Your task to perform on an android device: Search for Italian restaurants on Maps Image 0: 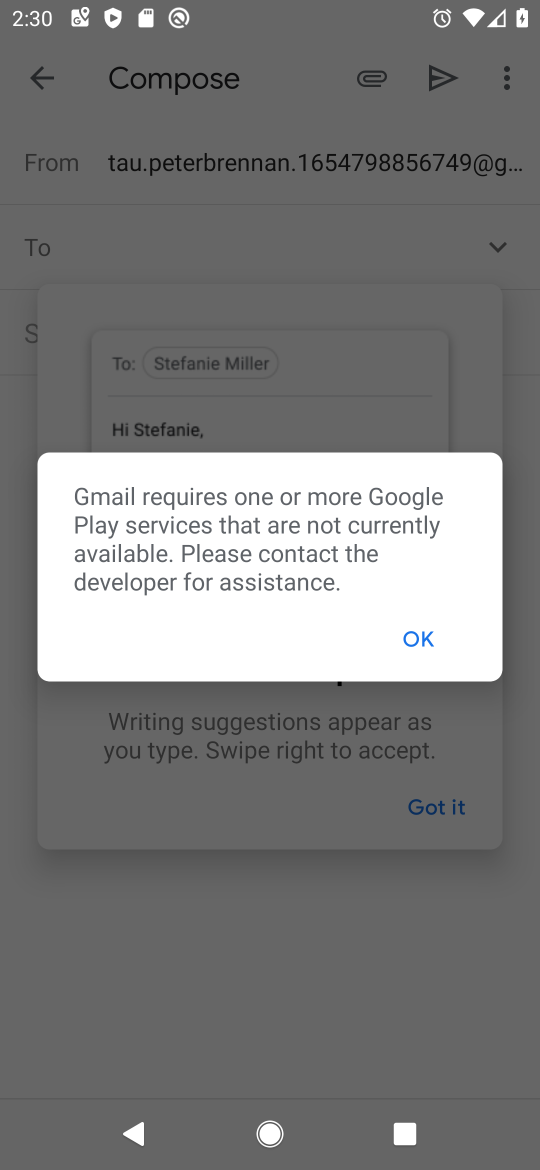
Step 0: press home button
Your task to perform on an android device: Search for Italian restaurants on Maps Image 1: 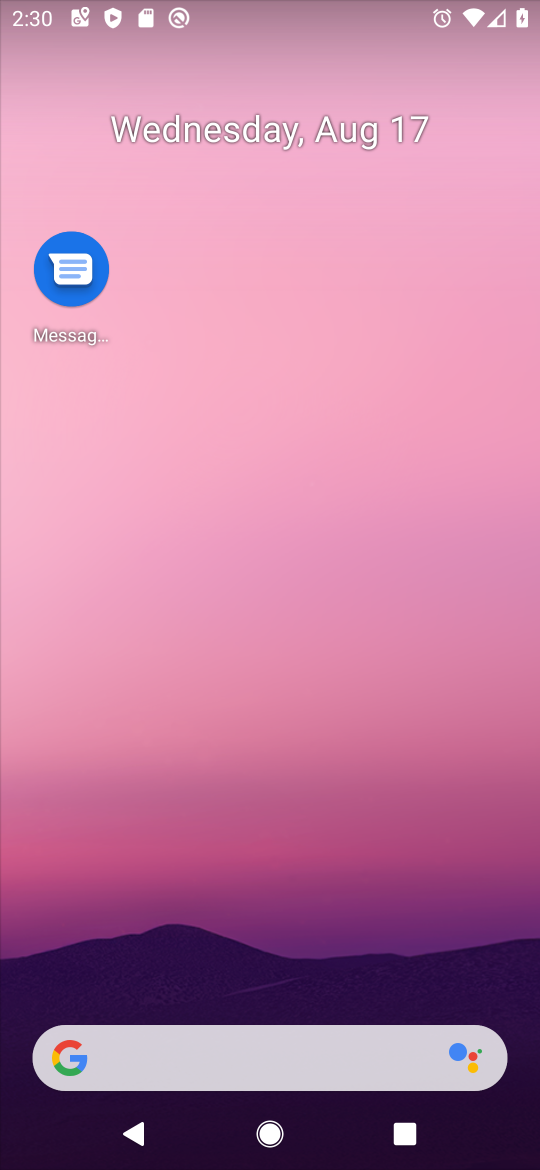
Step 1: drag from (255, 1006) to (235, 53)
Your task to perform on an android device: Search for Italian restaurants on Maps Image 2: 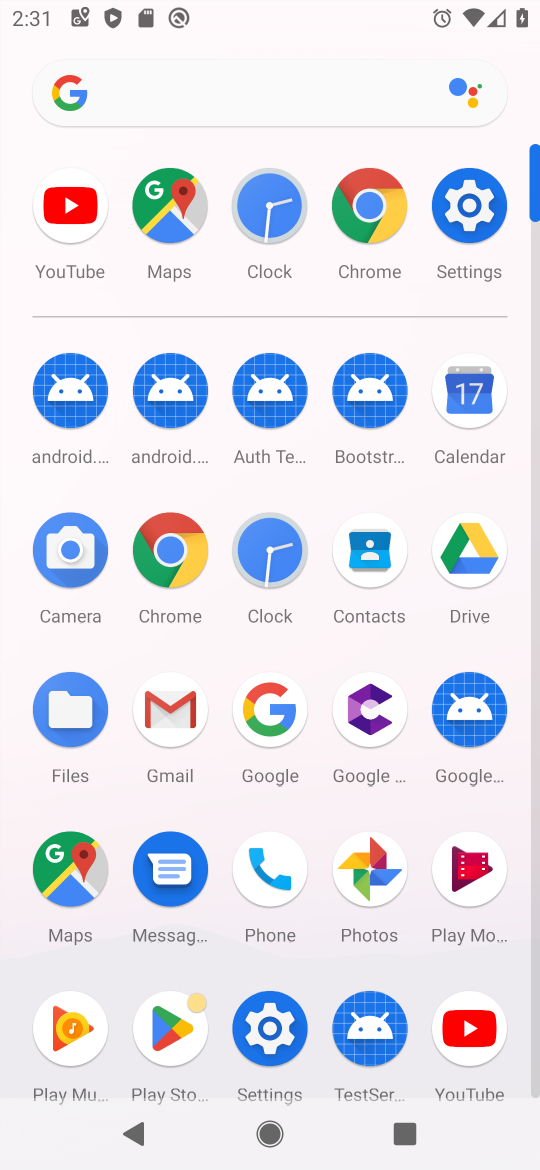
Step 2: click (83, 858)
Your task to perform on an android device: Search for Italian restaurants on Maps Image 3: 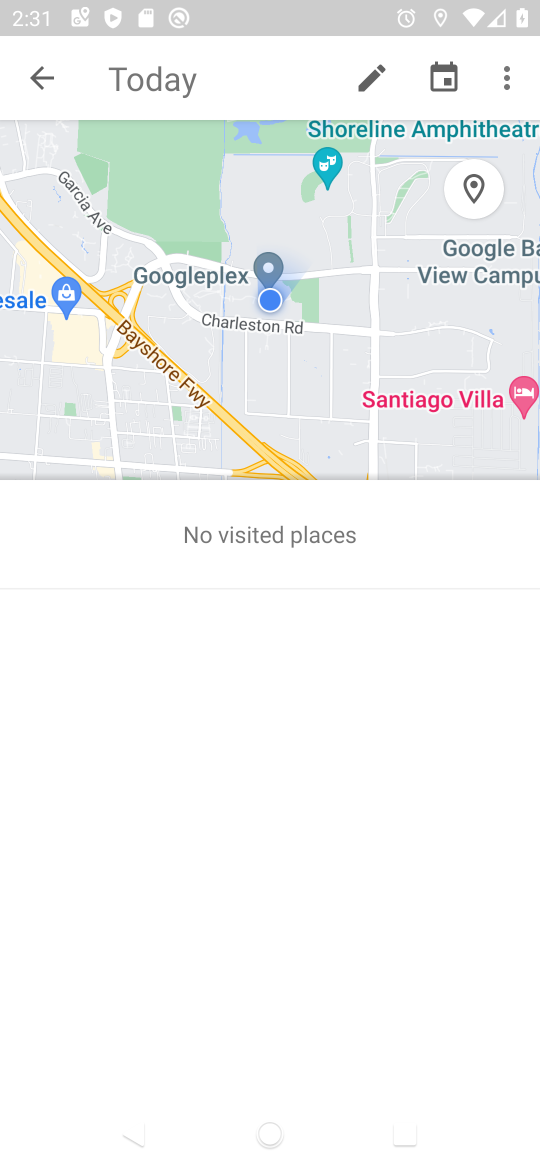
Step 3: click (64, 78)
Your task to perform on an android device: Search for Italian restaurants on Maps Image 4: 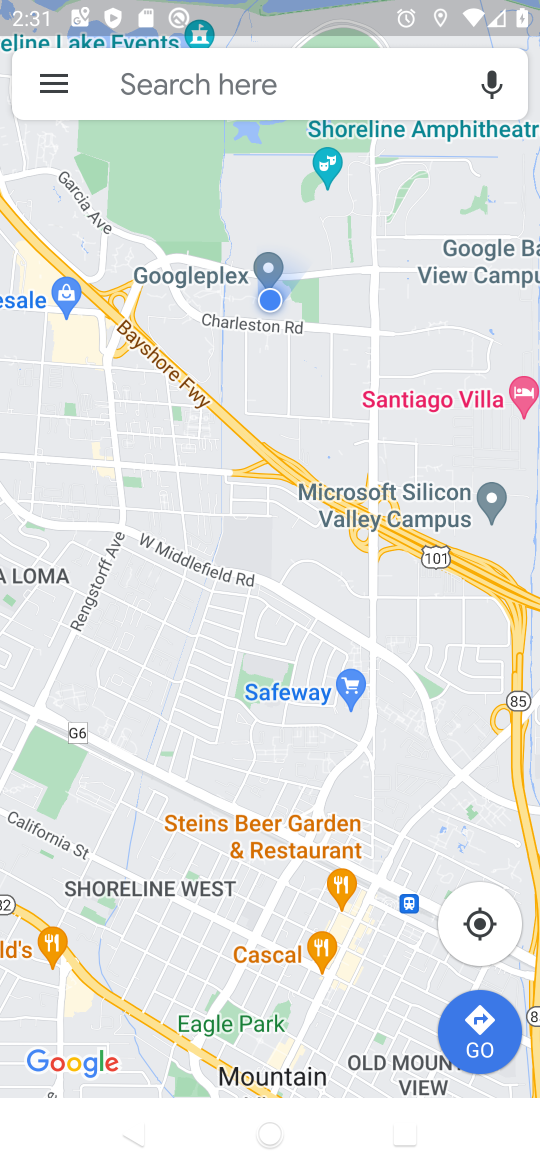
Step 4: click (139, 106)
Your task to perform on an android device: Search for Italian restaurants on Maps Image 5: 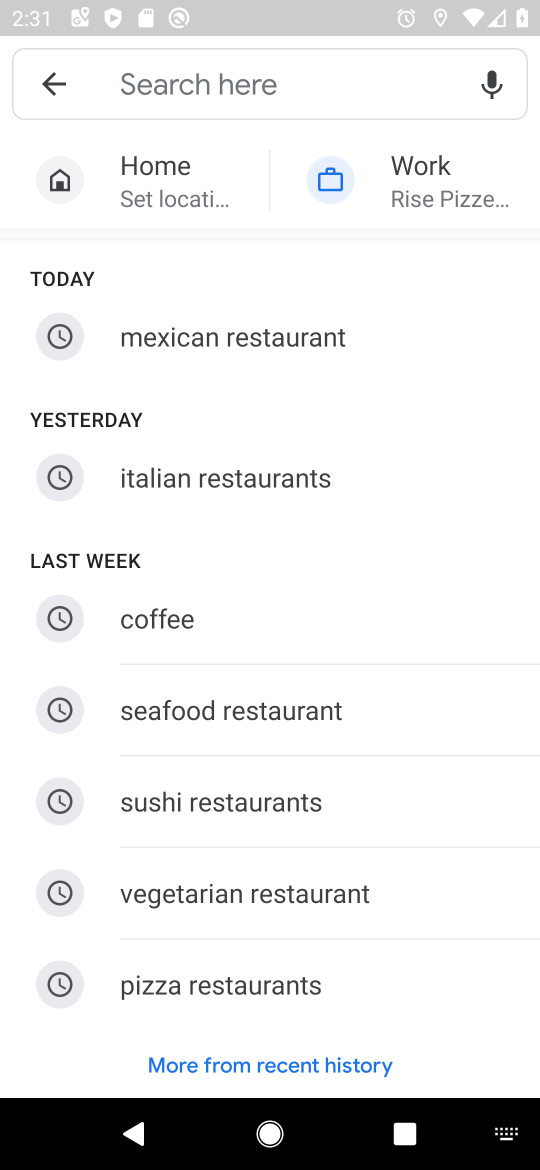
Step 5: click (238, 475)
Your task to perform on an android device: Search for Italian restaurants on Maps Image 6: 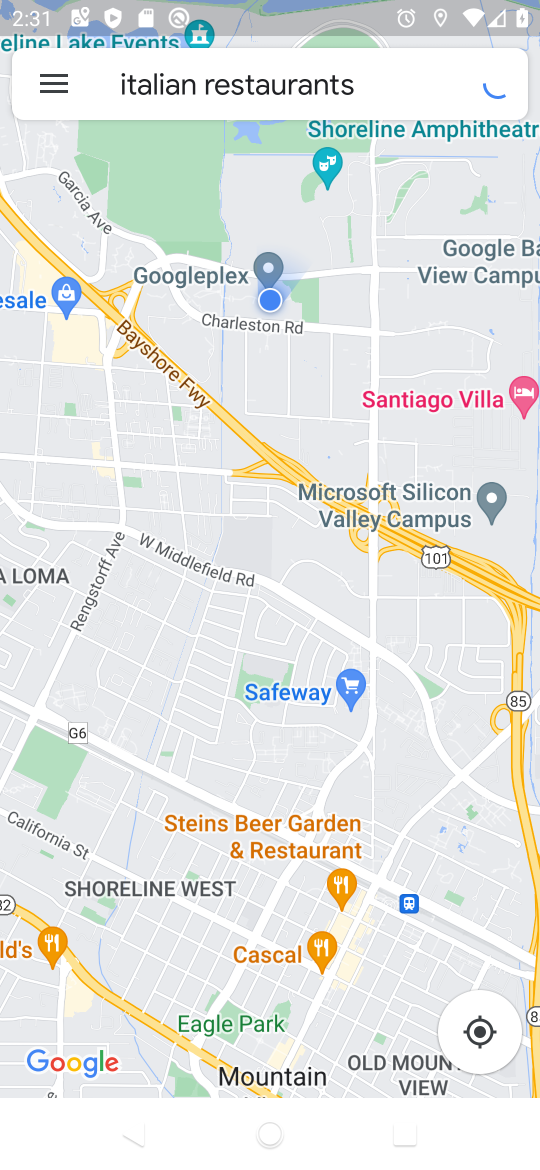
Step 6: task complete